Your task to perform on an android device: refresh tabs in the chrome app Image 0: 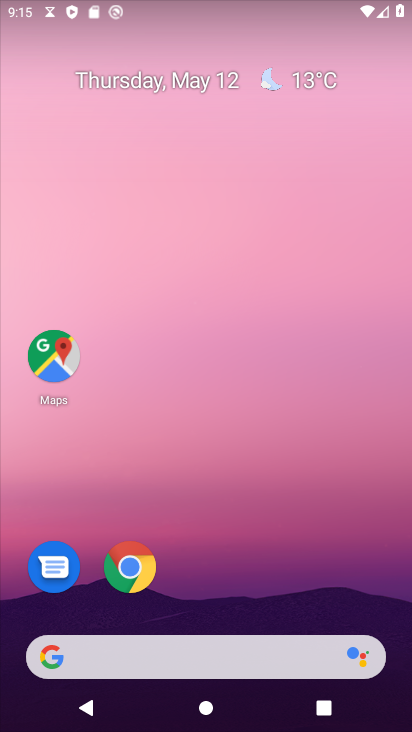
Step 0: click (114, 576)
Your task to perform on an android device: refresh tabs in the chrome app Image 1: 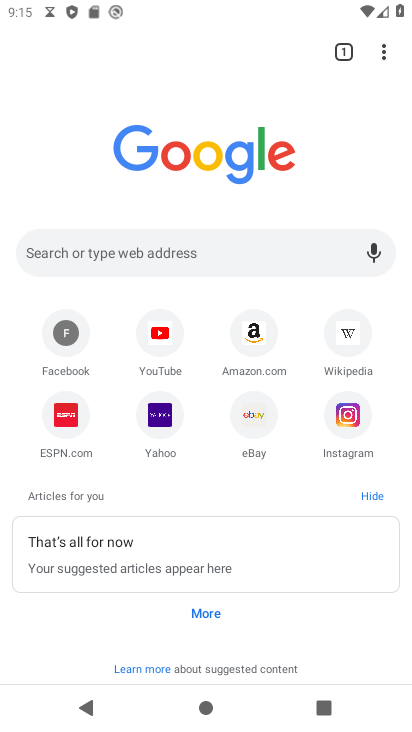
Step 1: click (386, 56)
Your task to perform on an android device: refresh tabs in the chrome app Image 2: 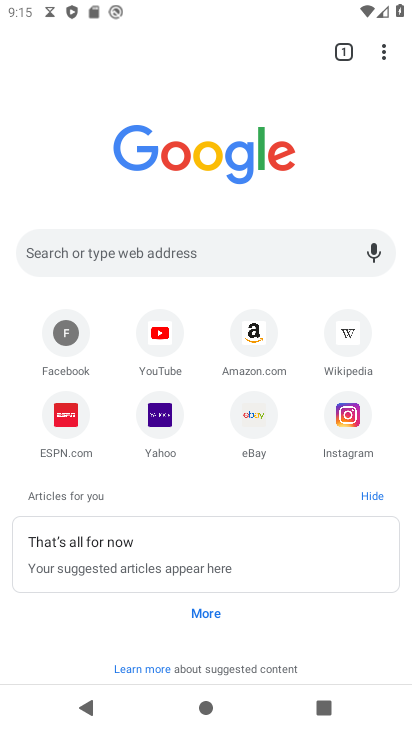
Step 2: click (382, 53)
Your task to perform on an android device: refresh tabs in the chrome app Image 3: 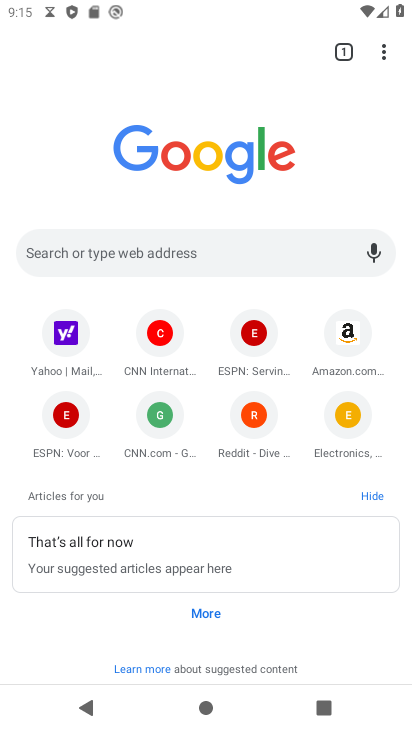
Step 3: click (384, 51)
Your task to perform on an android device: refresh tabs in the chrome app Image 4: 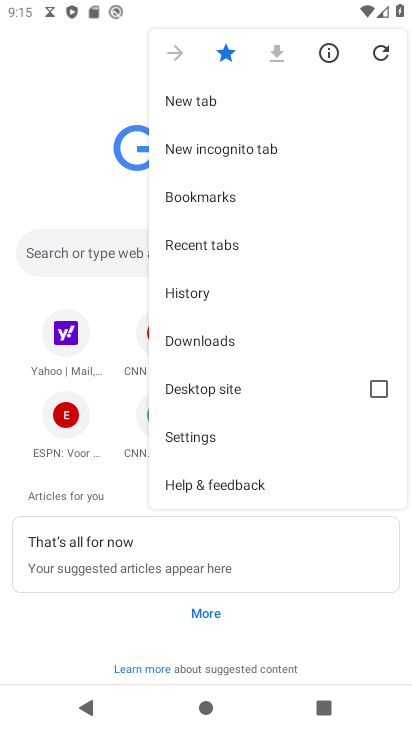
Step 4: click (377, 60)
Your task to perform on an android device: refresh tabs in the chrome app Image 5: 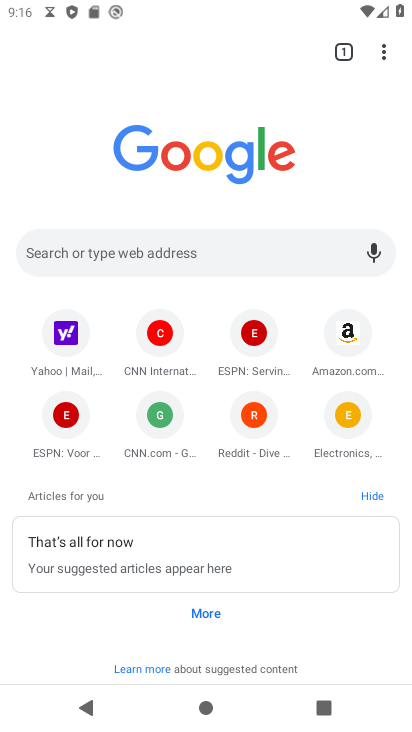
Step 5: task complete